Your task to perform on an android device: toggle pop-ups in chrome Image 0: 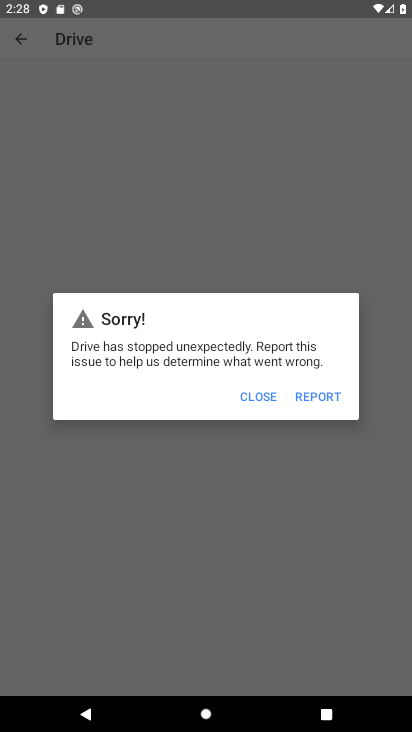
Step 0: press home button
Your task to perform on an android device: toggle pop-ups in chrome Image 1: 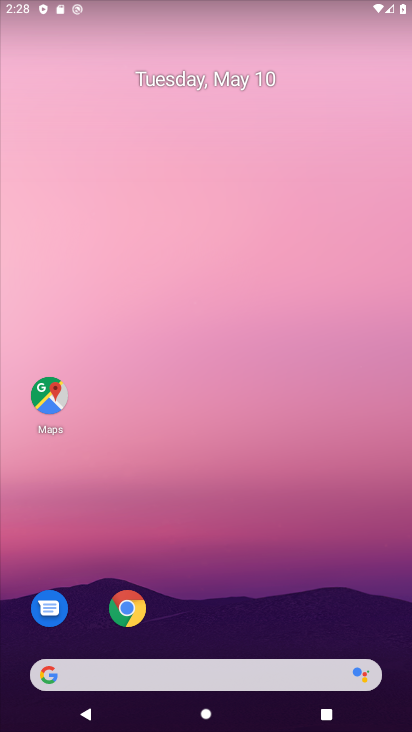
Step 1: click (127, 607)
Your task to perform on an android device: toggle pop-ups in chrome Image 2: 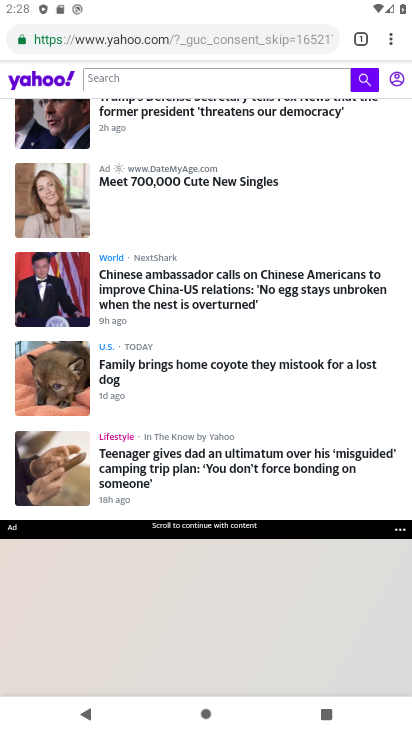
Step 2: click (392, 41)
Your task to perform on an android device: toggle pop-ups in chrome Image 3: 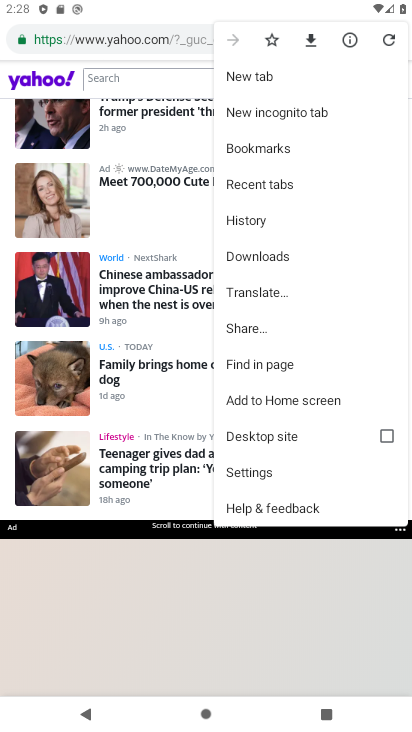
Step 3: click (260, 470)
Your task to perform on an android device: toggle pop-ups in chrome Image 4: 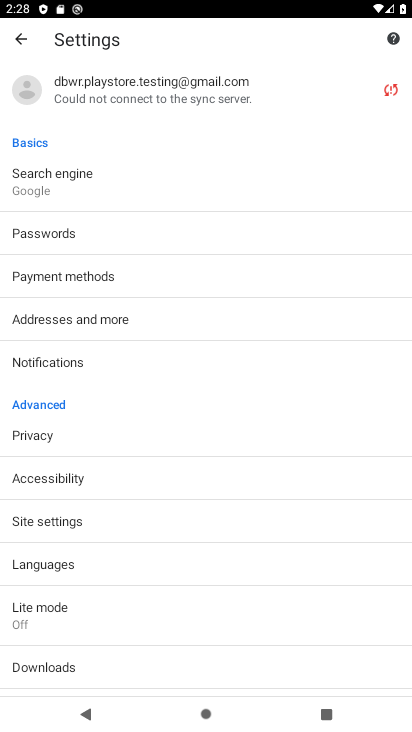
Step 4: click (48, 514)
Your task to perform on an android device: toggle pop-ups in chrome Image 5: 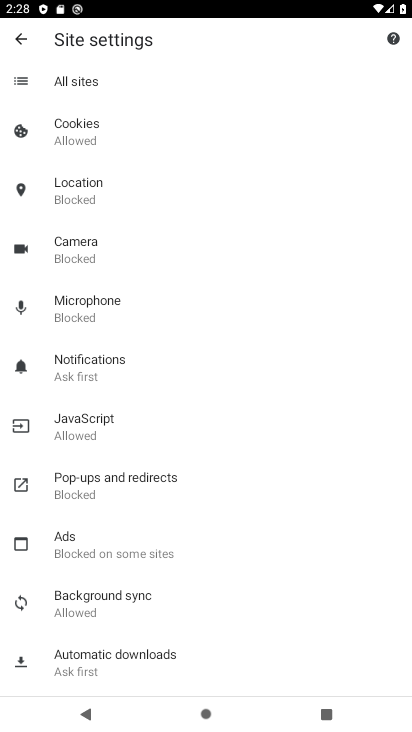
Step 5: click (81, 479)
Your task to perform on an android device: toggle pop-ups in chrome Image 6: 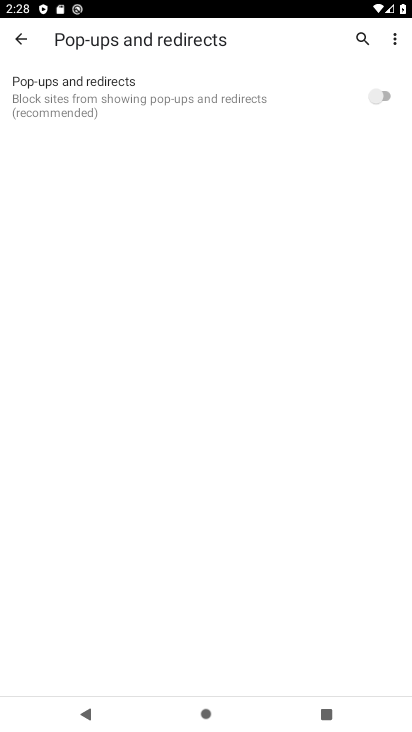
Step 6: click (386, 98)
Your task to perform on an android device: toggle pop-ups in chrome Image 7: 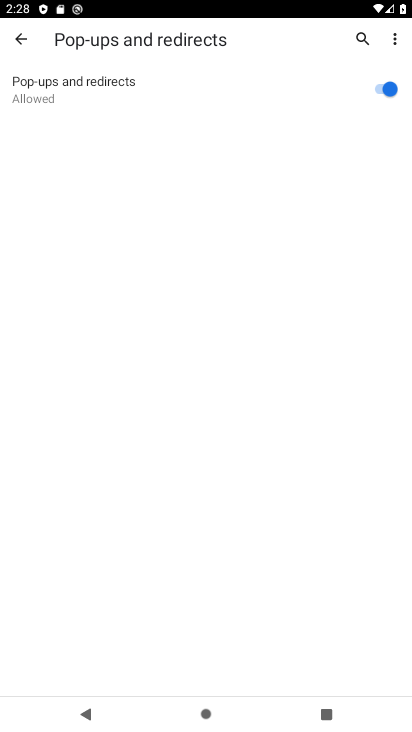
Step 7: task complete